Your task to perform on an android device: Go to Android settings Image 0: 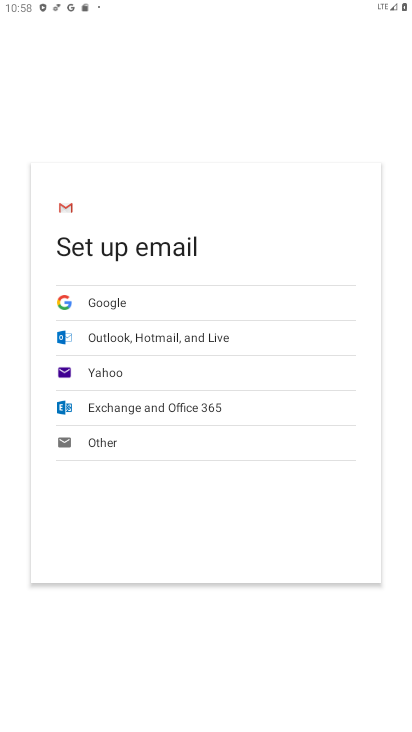
Step 0: press home button
Your task to perform on an android device: Go to Android settings Image 1: 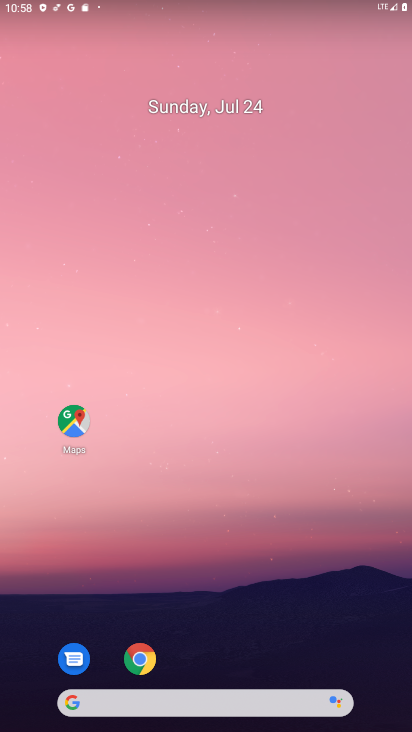
Step 1: drag from (249, 627) to (192, 142)
Your task to perform on an android device: Go to Android settings Image 2: 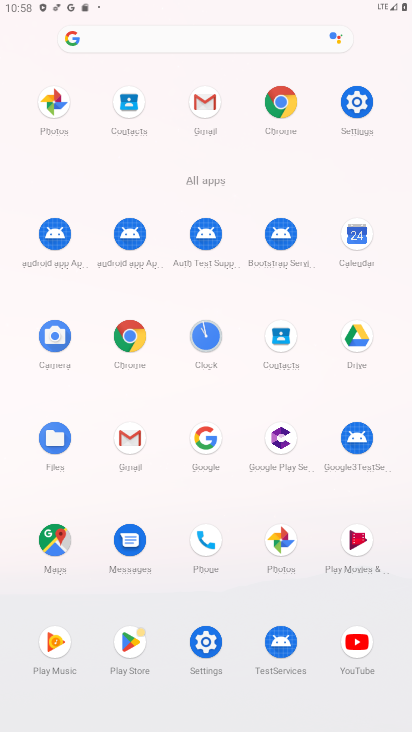
Step 2: click (352, 112)
Your task to perform on an android device: Go to Android settings Image 3: 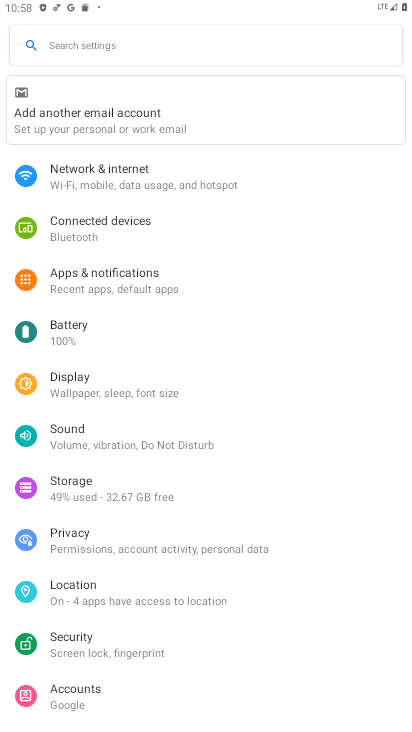
Step 3: task complete